Your task to perform on an android device: Open Maps and search for coffee Image 0: 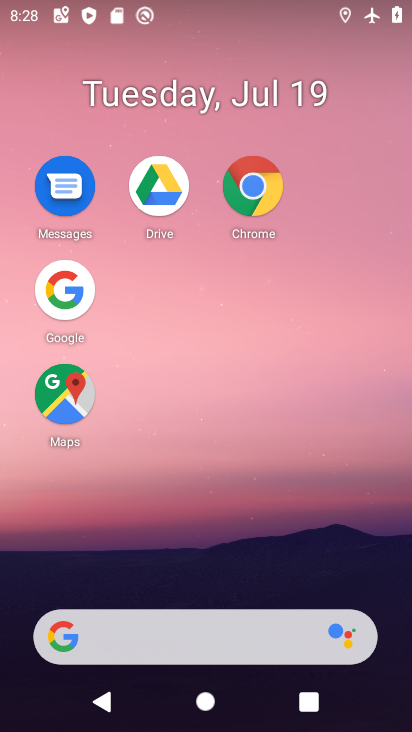
Step 0: click (76, 397)
Your task to perform on an android device: Open Maps and search for coffee Image 1: 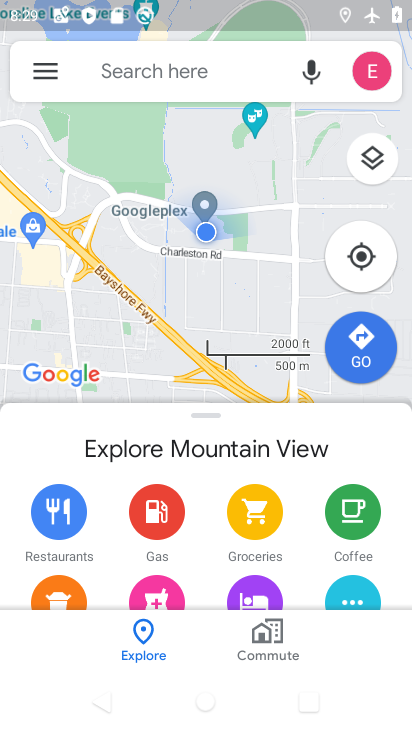
Step 1: click (220, 101)
Your task to perform on an android device: Open Maps and search for coffee Image 2: 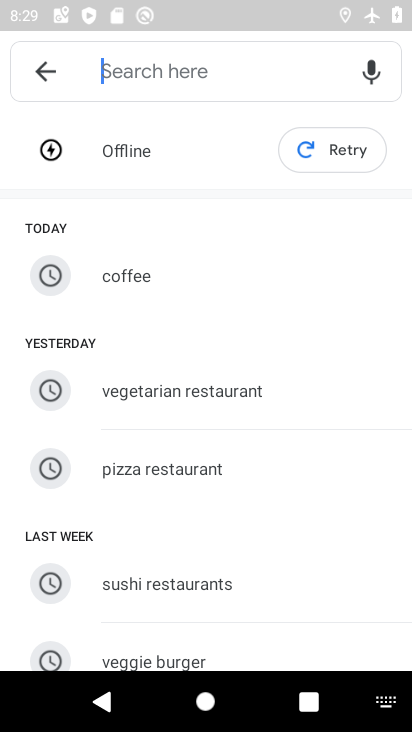
Step 2: click (100, 253)
Your task to perform on an android device: Open Maps and search for coffee Image 3: 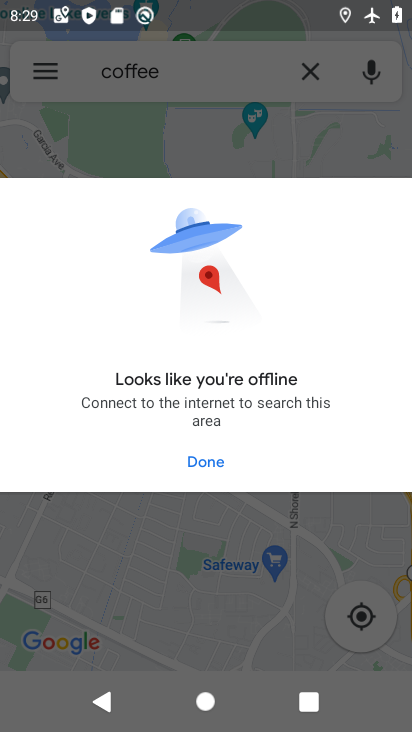
Step 3: click (214, 462)
Your task to perform on an android device: Open Maps and search for coffee Image 4: 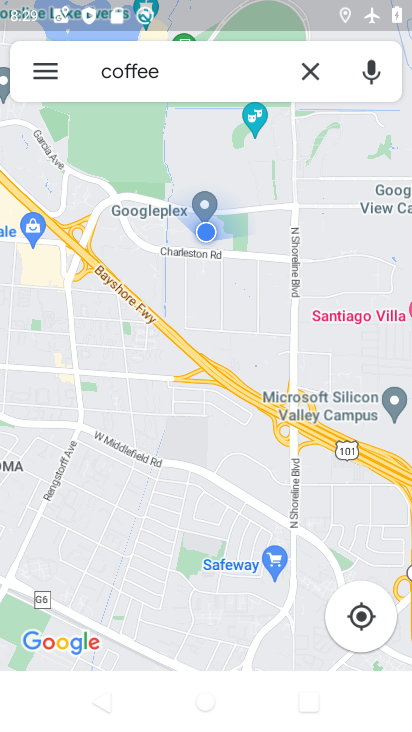
Step 4: task complete